Your task to perform on an android device: Open Amazon Image 0: 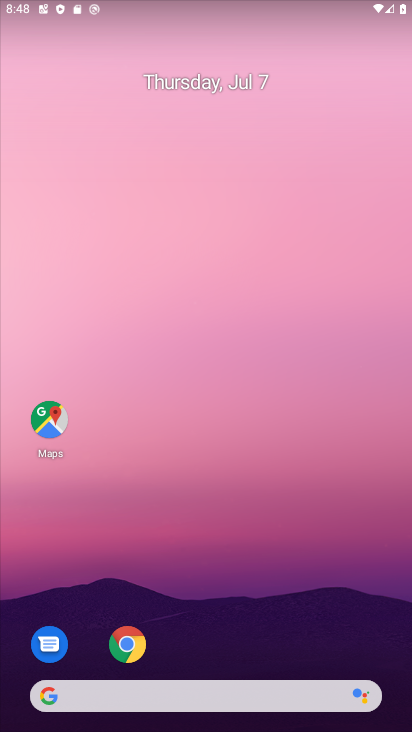
Step 0: click (122, 651)
Your task to perform on an android device: Open Amazon Image 1: 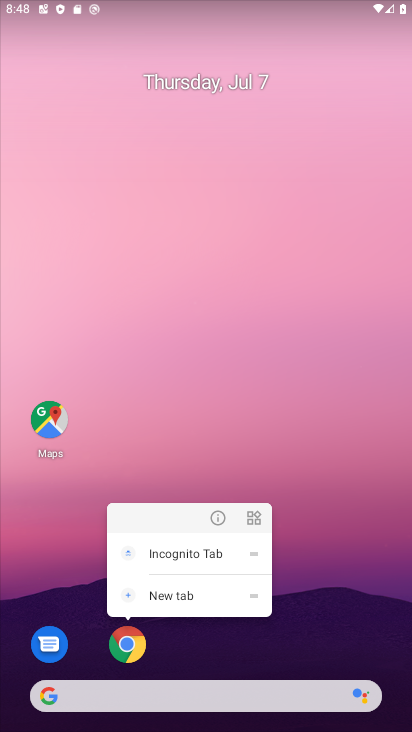
Step 1: click (135, 644)
Your task to perform on an android device: Open Amazon Image 2: 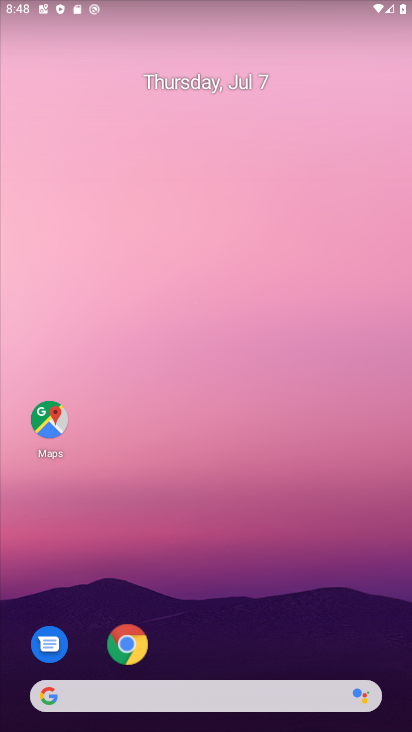
Step 2: click (141, 641)
Your task to perform on an android device: Open Amazon Image 3: 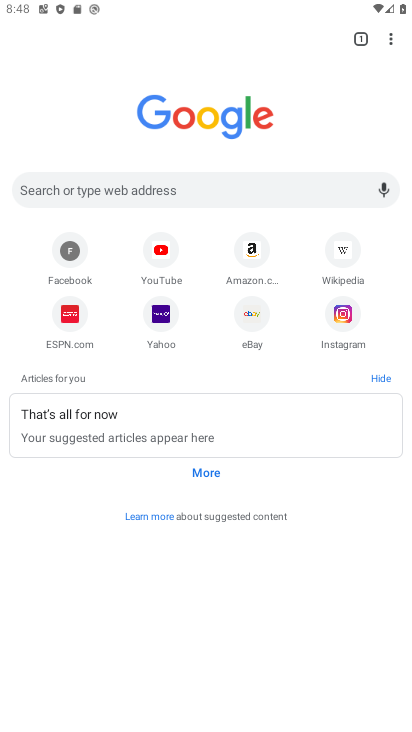
Step 3: click (262, 253)
Your task to perform on an android device: Open Amazon Image 4: 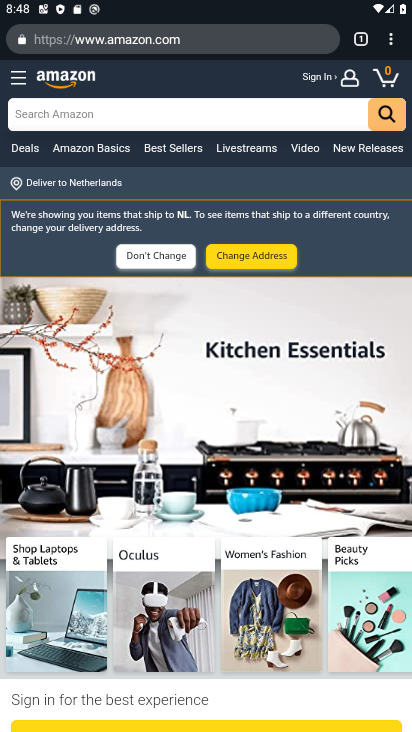
Step 4: task complete